Your task to perform on an android device: Open Youtube and go to the subscriptions tab Image 0: 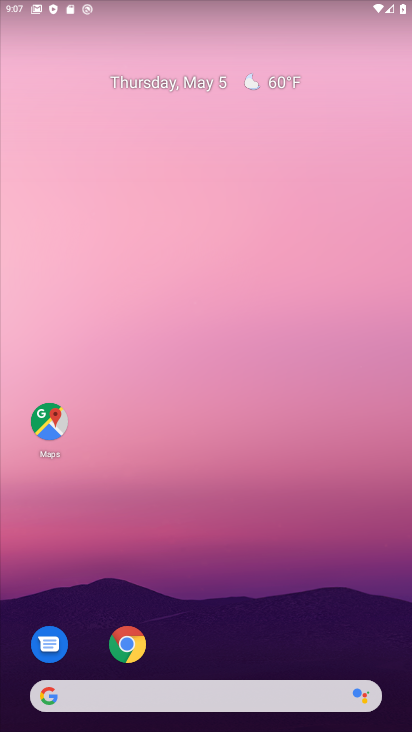
Step 0: drag from (364, 639) to (351, 79)
Your task to perform on an android device: Open Youtube and go to the subscriptions tab Image 1: 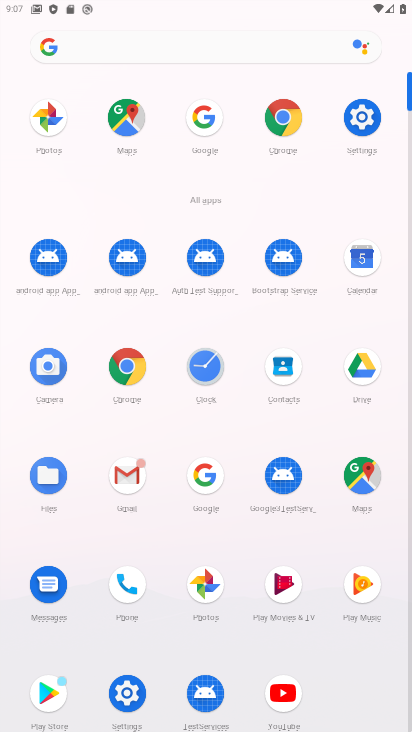
Step 1: click (278, 690)
Your task to perform on an android device: Open Youtube and go to the subscriptions tab Image 2: 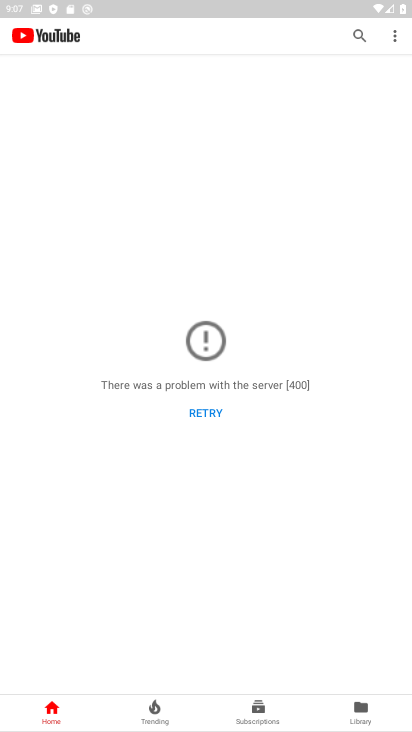
Step 2: click (265, 691)
Your task to perform on an android device: Open Youtube and go to the subscriptions tab Image 3: 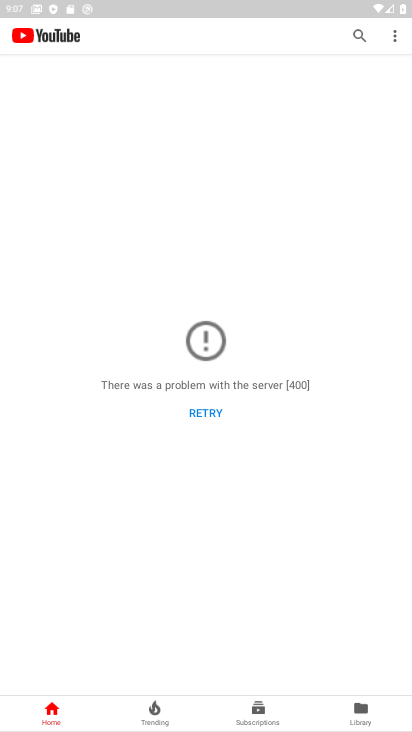
Step 3: click (268, 708)
Your task to perform on an android device: Open Youtube and go to the subscriptions tab Image 4: 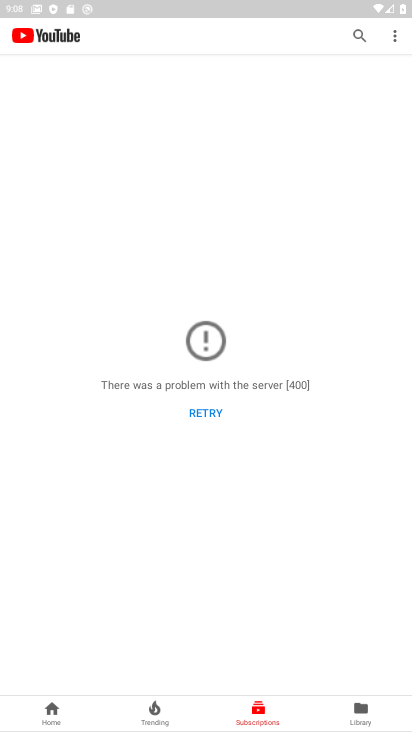
Step 4: task complete